Your task to perform on an android device: Open calendar and show me the fourth week of next month Image 0: 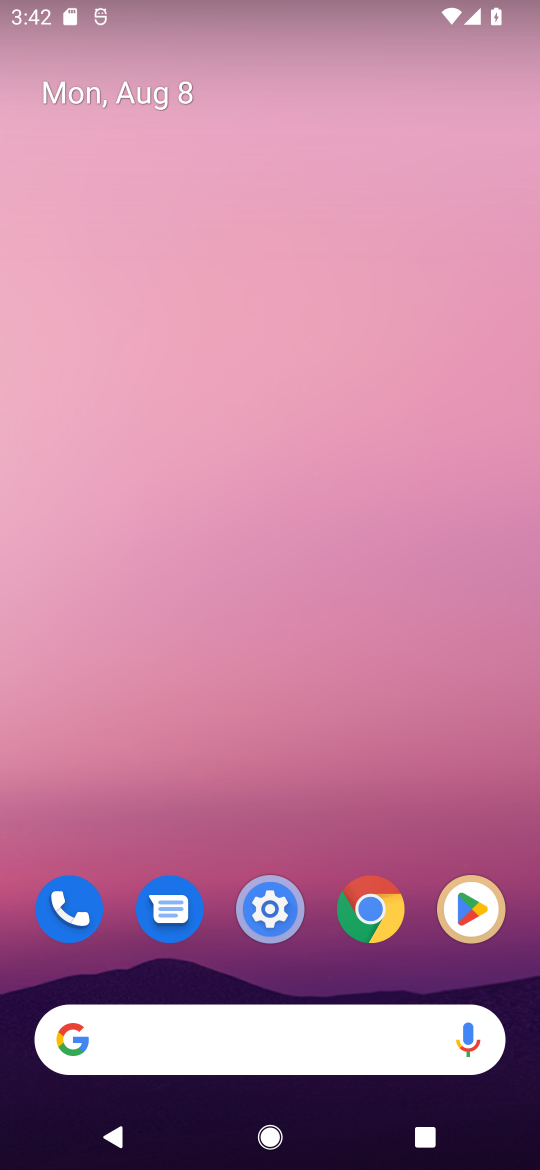
Step 0: drag from (284, 1011) to (213, 42)
Your task to perform on an android device: Open calendar and show me the fourth week of next month Image 1: 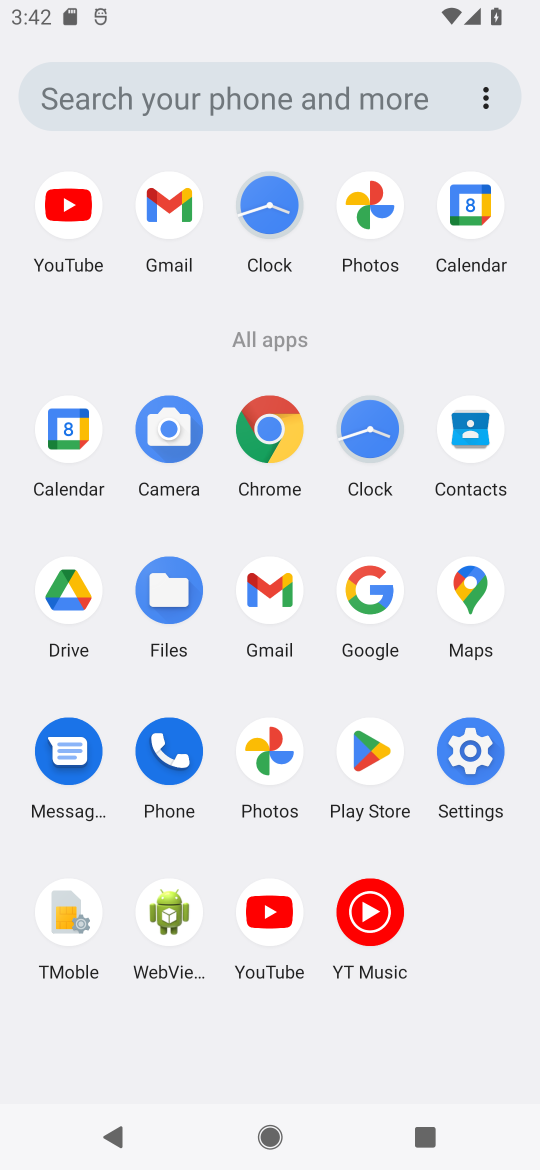
Step 1: click (77, 439)
Your task to perform on an android device: Open calendar and show me the fourth week of next month Image 2: 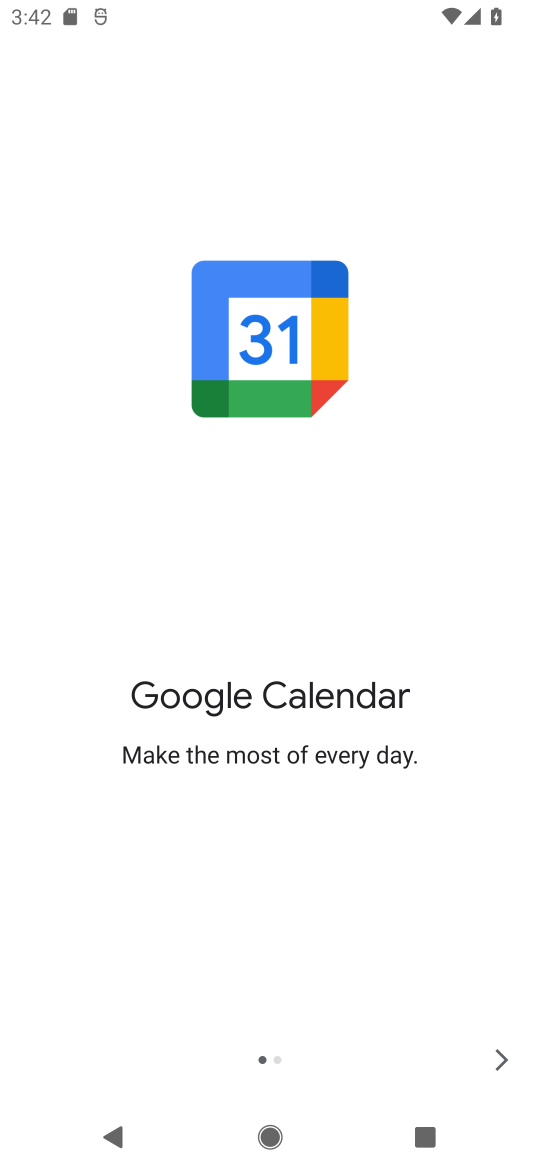
Step 2: click (503, 1068)
Your task to perform on an android device: Open calendar and show me the fourth week of next month Image 3: 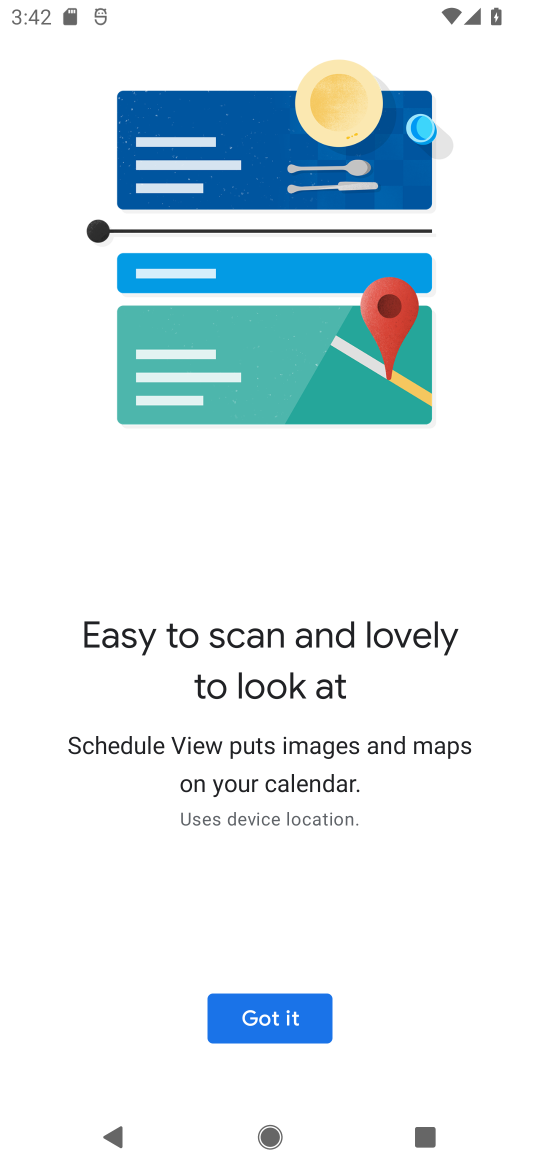
Step 3: click (283, 1028)
Your task to perform on an android device: Open calendar and show me the fourth week of next month Image 4: 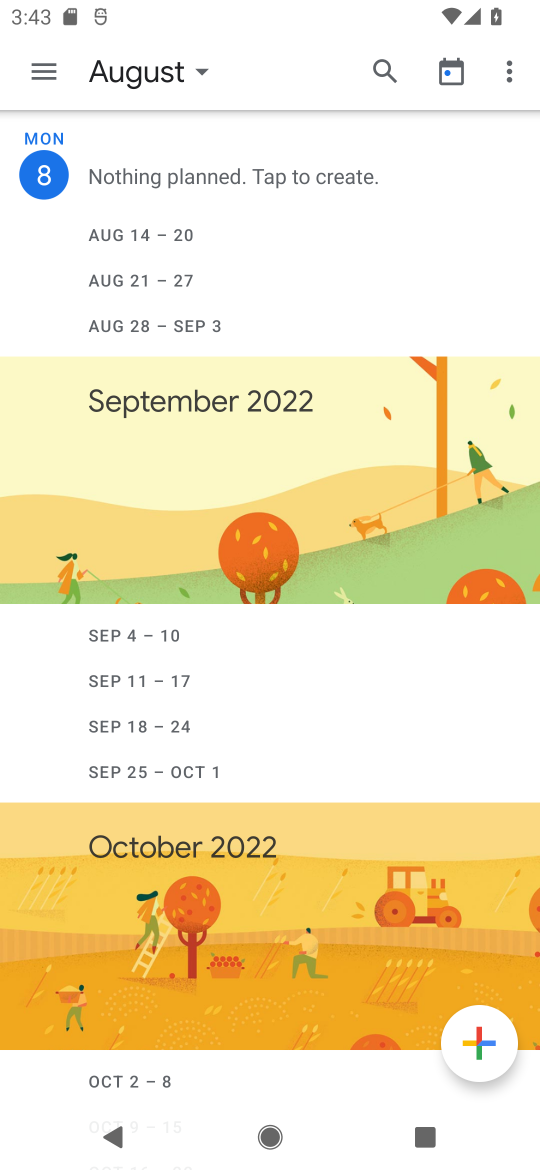
Step 4: click (32, 68)
Your task to perform on an android device: Open calendar and show me the fourth week of next month Image 5: 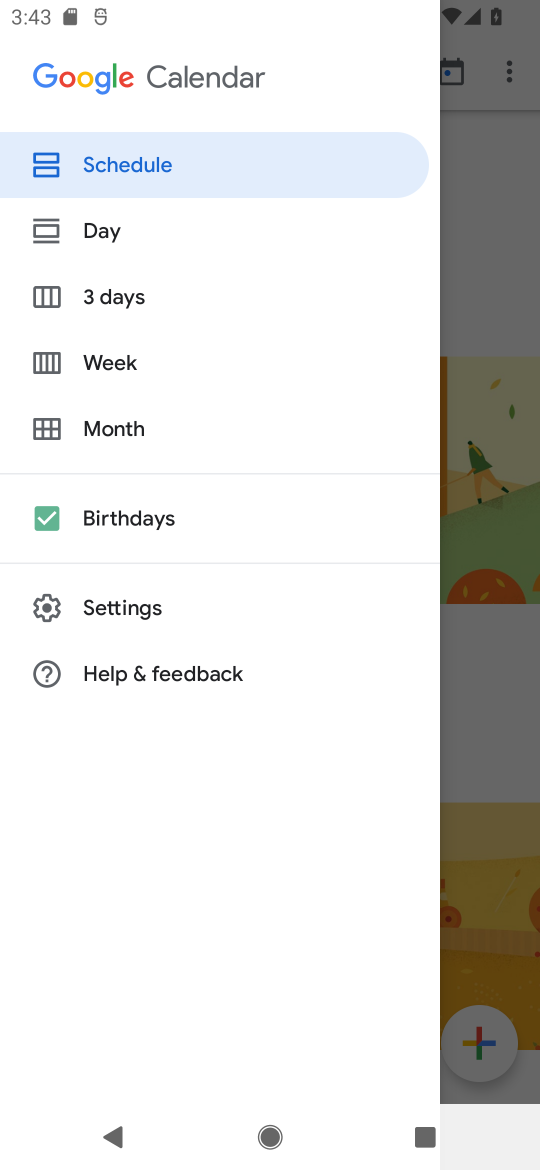
Step 5: click (115, 358)
Your task to perform on an android device: Open calendar and show me the fourth week of next month Image 6: 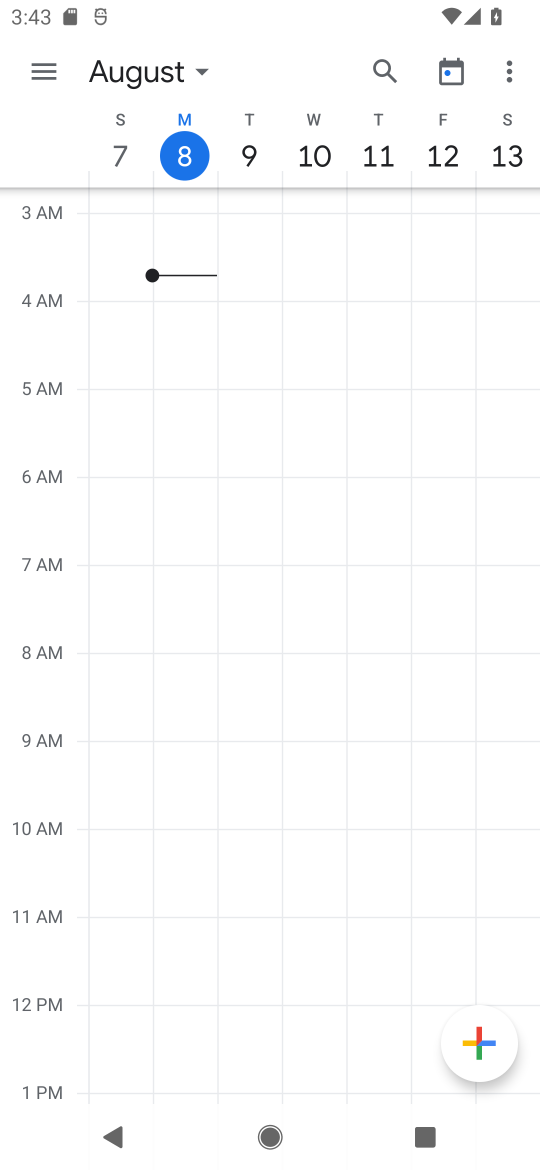
Step 6: task complete